Your task to perform on an android device: open app "eBay: The shopping marketplace" (install if not already installed) Image 0: 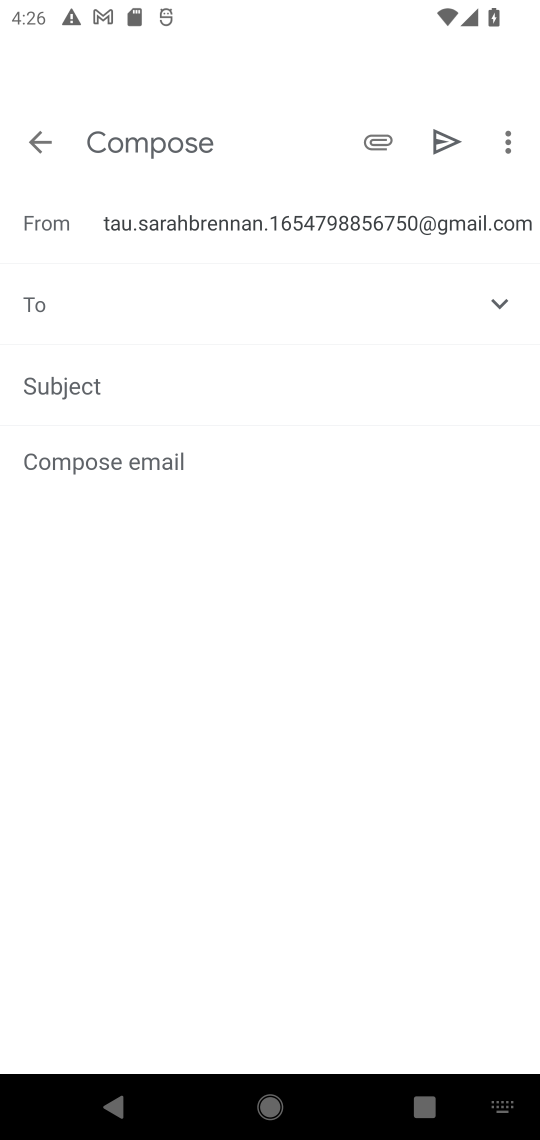
Step 0: press home button
Your task to perform on an android device: open app "eBay: The shopping marketplace" (install if not already installed) Image 1: 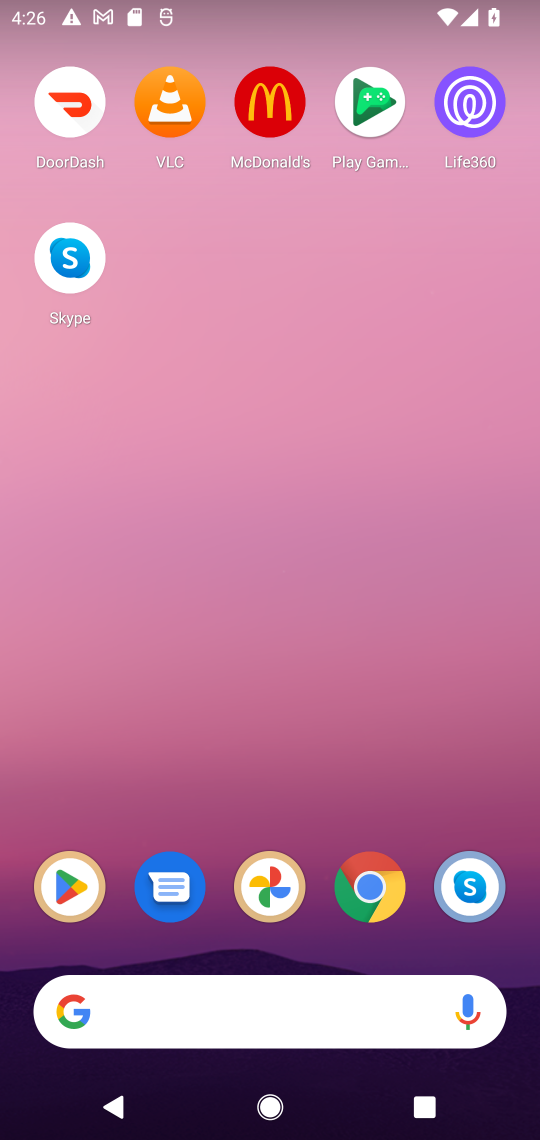
Step 1: click (67, 892)
Your task to perform on an android device: open app "eBay: The shopping marketplace" (install if not already installed) Image 2: 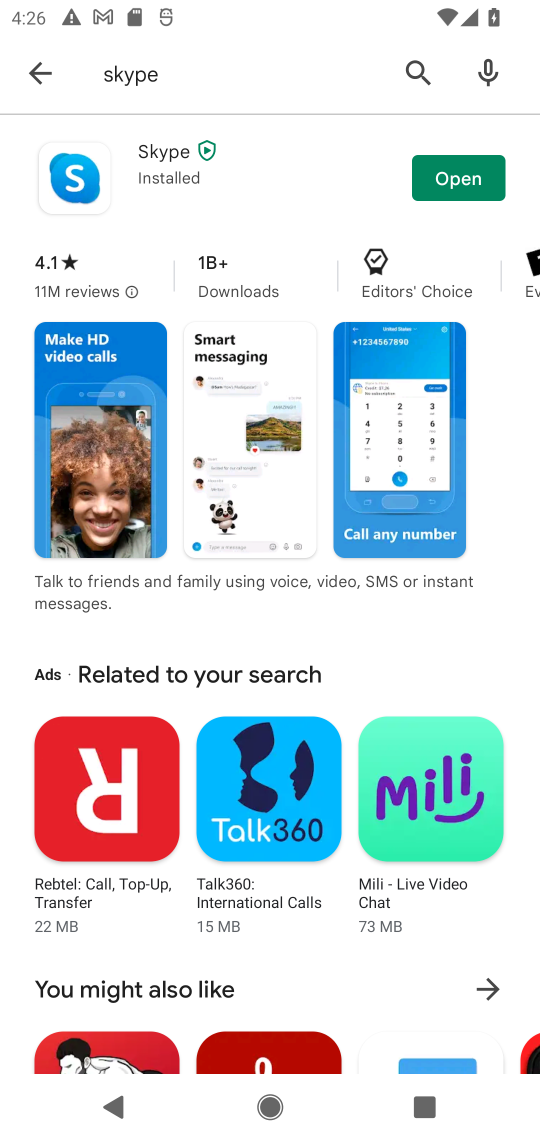
Step 2: click (157, 76)
Your task to perform on an android device: open app "eBay: The shopping marketplace" (install if not already installed) Image 3: 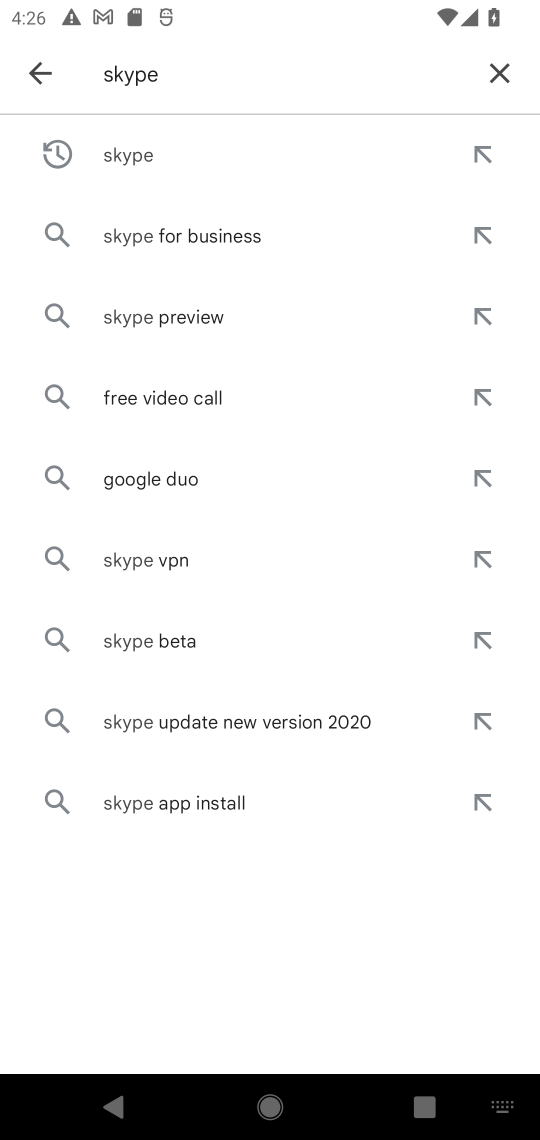
Step 3: click (488, 74)
Your task to perform on an android device: open app "eBay: The shopping marketplace" (install if not already installed) Image 4: 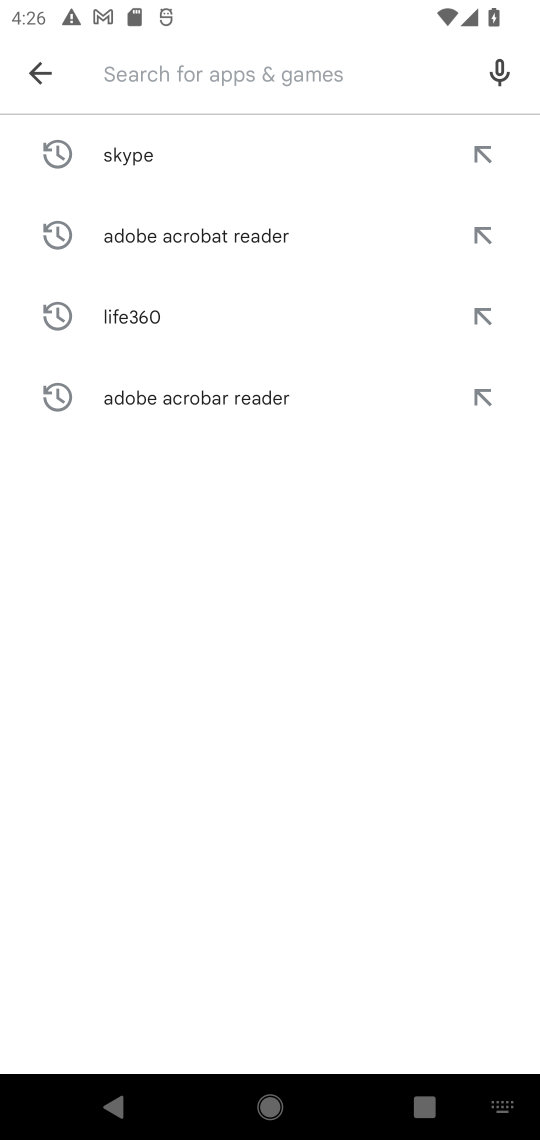
Step 4: type "eBay"
Your task to perform on an android device: open app "eBay: The shopping marketplace" (install if not already installed) Image 5: 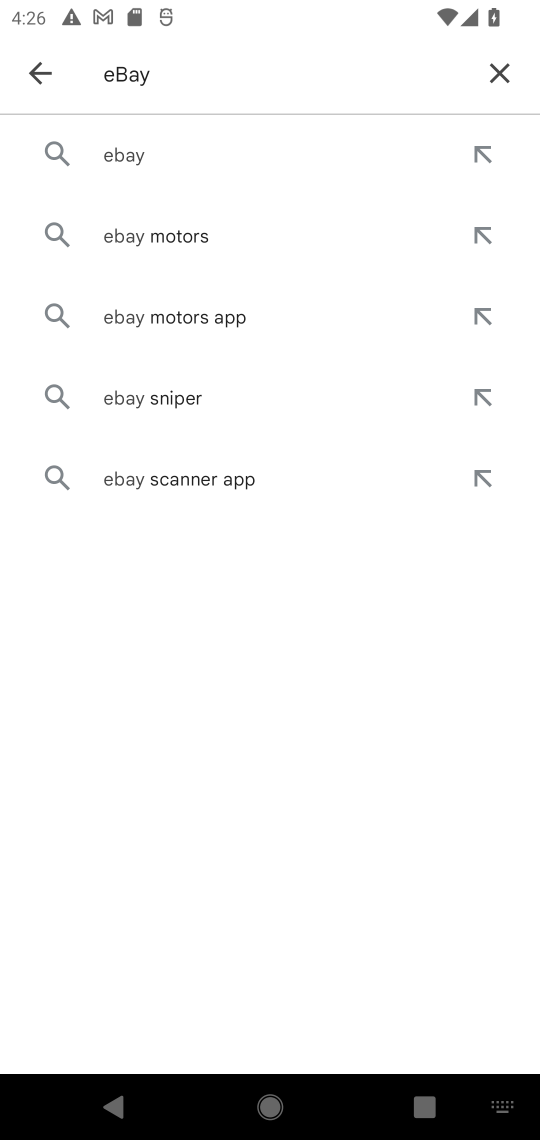
Step 5: click (138, 169)
Your task to perform on an android device: open app "eBay: The shopping marketplace" (install if not already installed) Image 6: 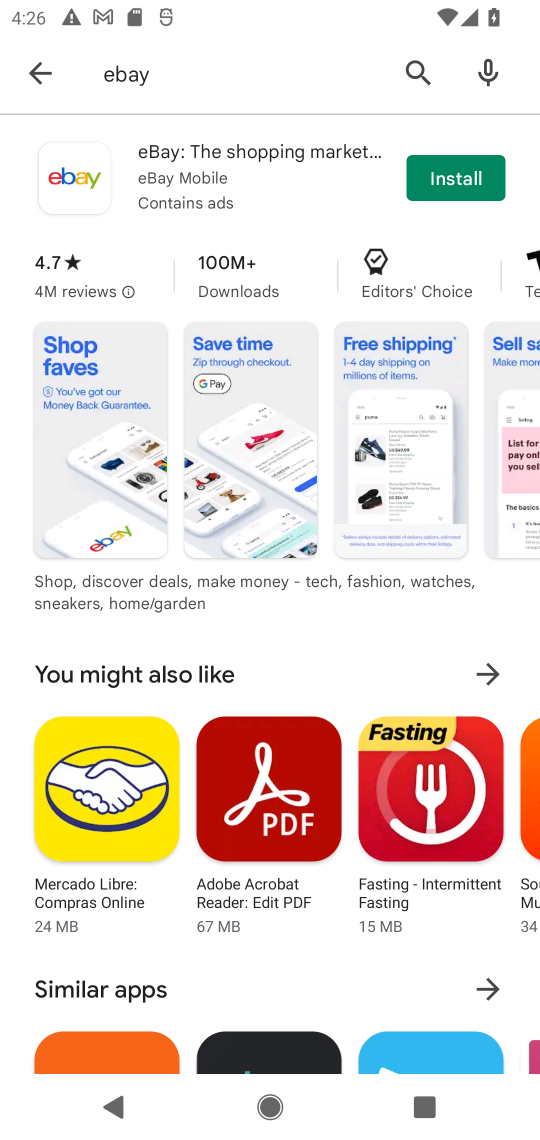
Step 6: click (477, 174)
Your task to perform on an android device: open app "eBay: The shopping marketplace" (install if not already installed) Image 7: 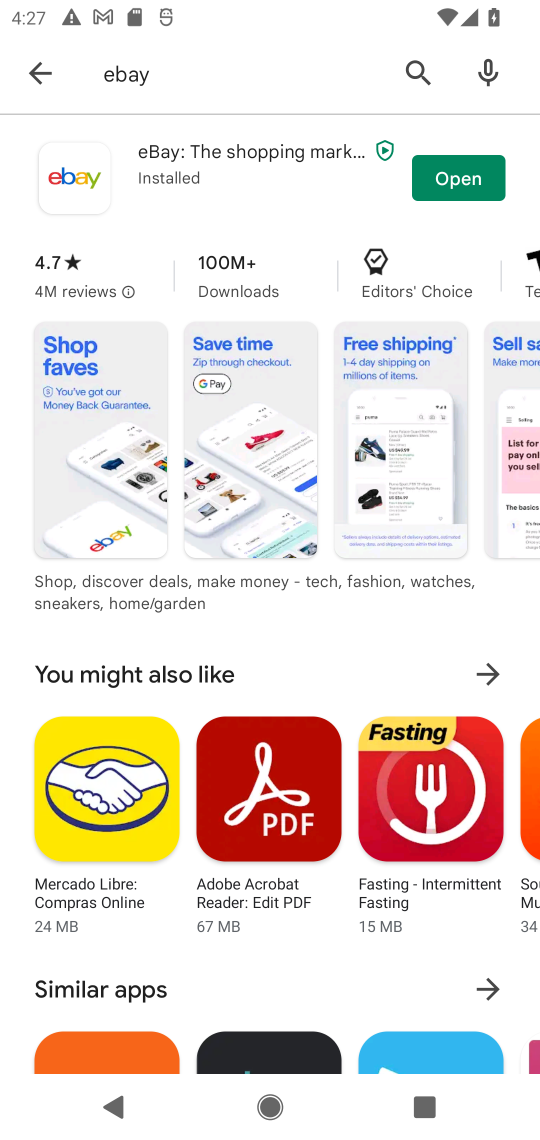
Step 7: click (439, 179)
Your task to perform on an android device: open app "eBay: The shopping marketplace" (install if not already installed) Image 8: 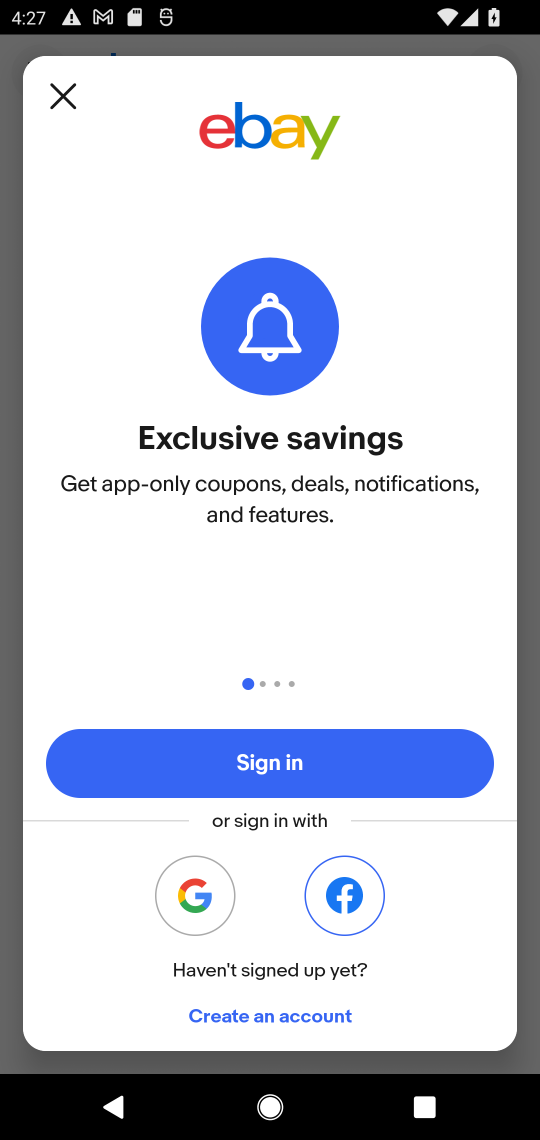
Step 8: click (67, 89)
Your task to perform on an android device: open app "eBay: The shopping marketplace" (install if not already installed) Image 9: 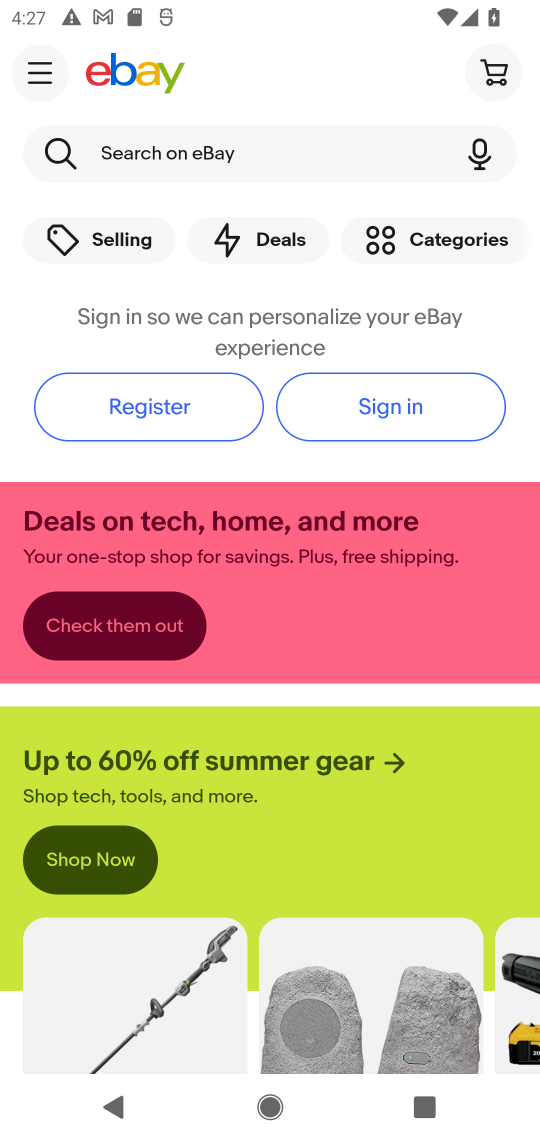
Step 9: task complete